Your task to perform on an android device: Open settings Image 0: 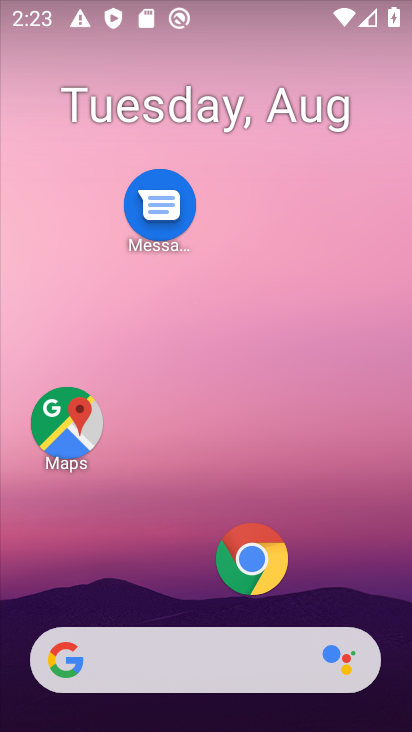
Step 0: drag from (164, 603) to (164, 190)
Your task to perform on an android device: Open settings Image 1: 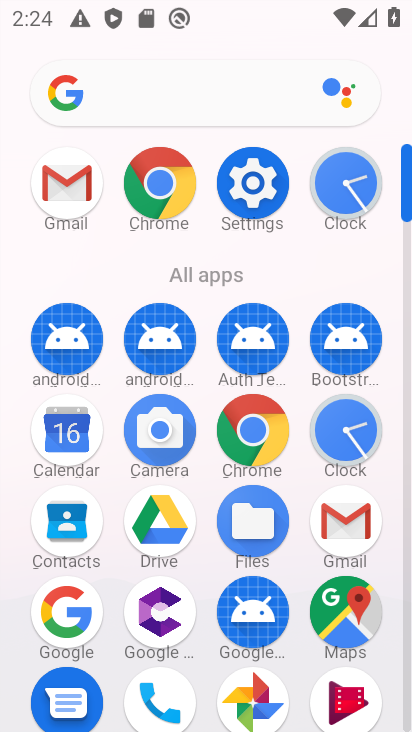
Step 1: click (256, 183)
Your task to perform on an android device: Open settings Image 2: 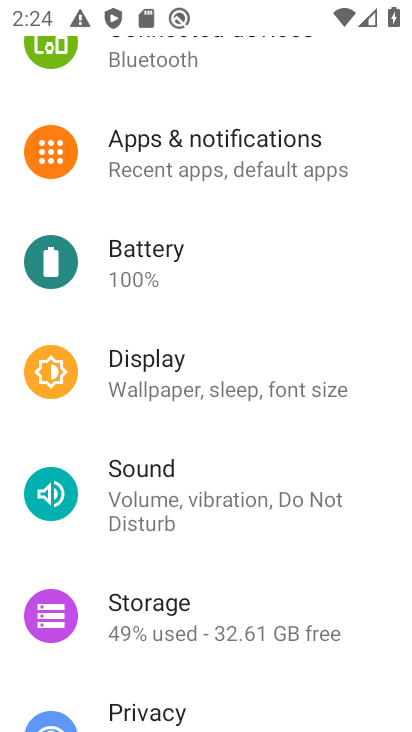
Step 2: task complete